Your task to perform on an android device: Open Reddit.com Image 0: 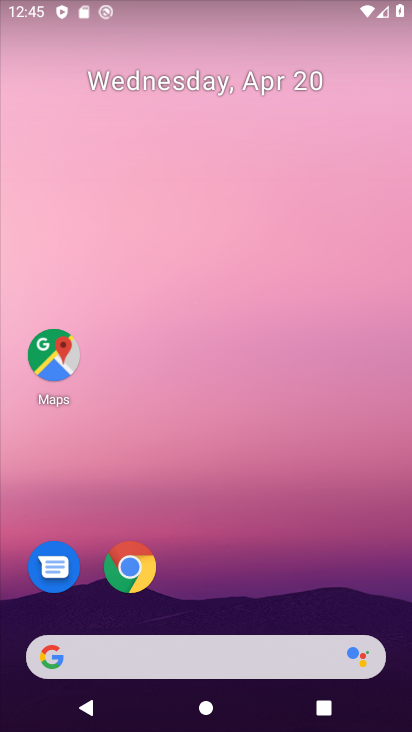
Step 0: click (123, 574)
Your task to perform on an android device: Open Reddit.com Image 1: 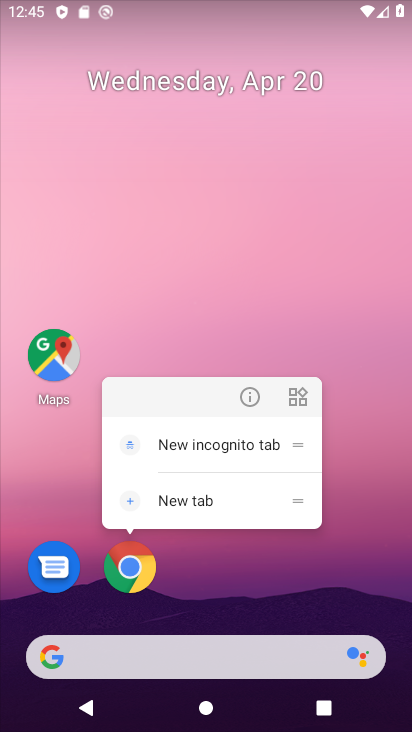
Step 1: click (121, 574)
Your task to perform on an android device: Open Reddit.com Image 2: 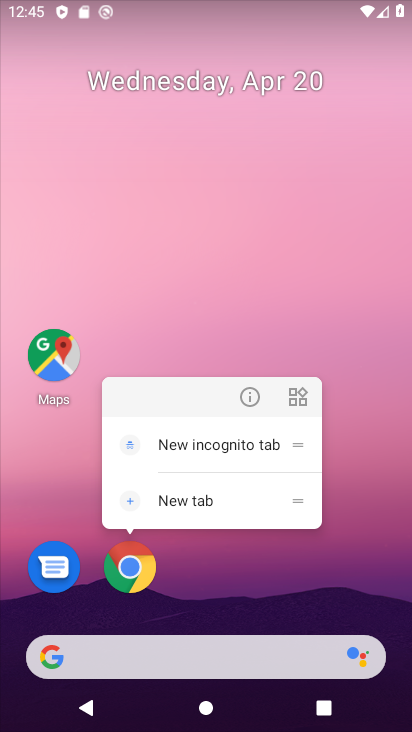
Step 2: click (120, 562)
Your task to perform on an android device: Open Reddit.com Image 3: 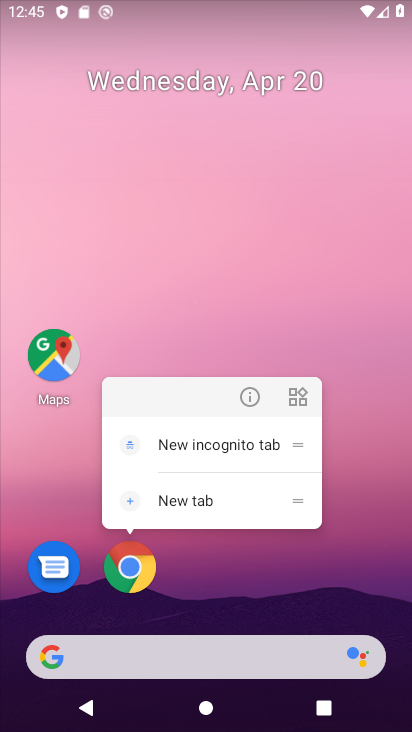
Step 3: click (120, 562)
Your task to perform on an android device: Open Reddit.com Image 4: 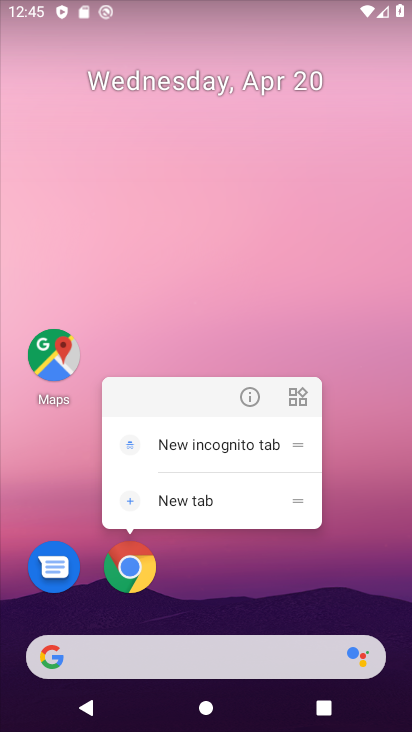
Step 4: click (125, 563)
Your task to perform on an android device: Open Reddit.com Image 5: 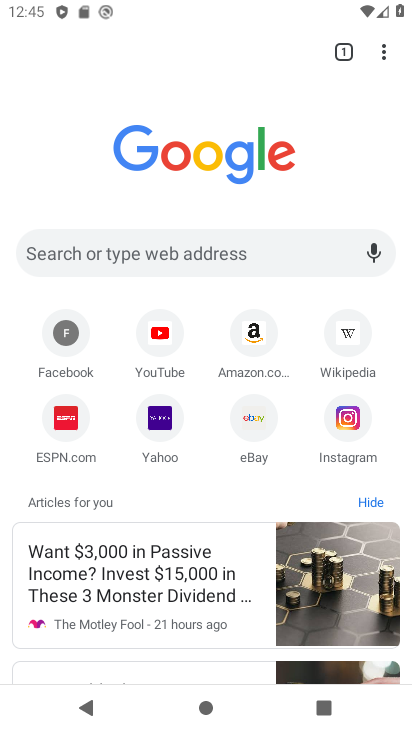
Step 5: click (177, 249)
Your task to perform on an android device: Open Reddit.com Image 6: 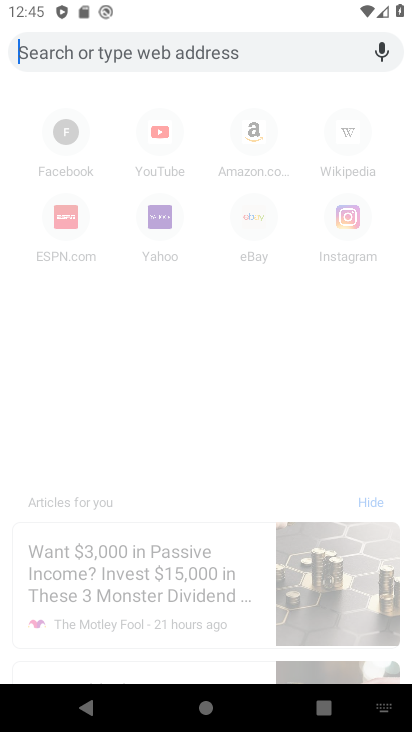
Step 6: type "Reddit.com"
Your task to perform on an android device: Open Reddit.com Image 7: 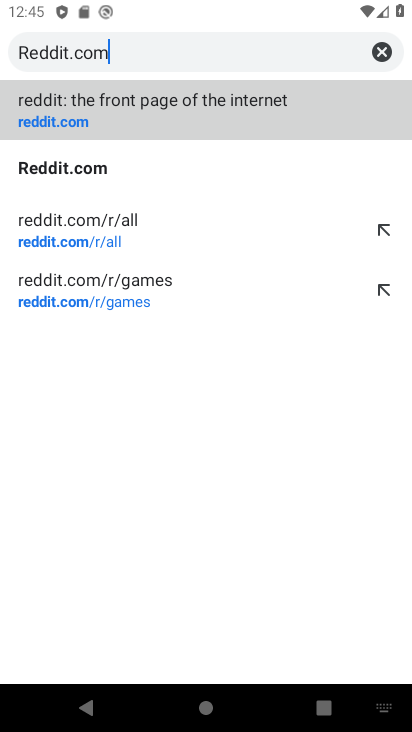
Step 7: click (59, 167)
Your task to perform on an android device: Open Reddit.com Image 8: 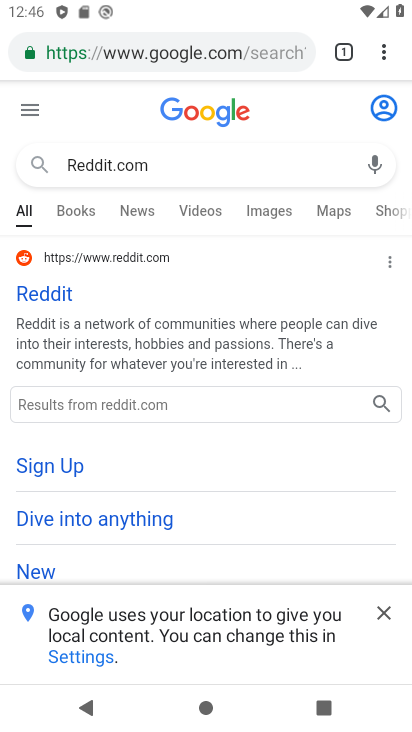
Step 8: task complete